Your task to perform on an android device: Show me the alarms in the clock app Image 0: 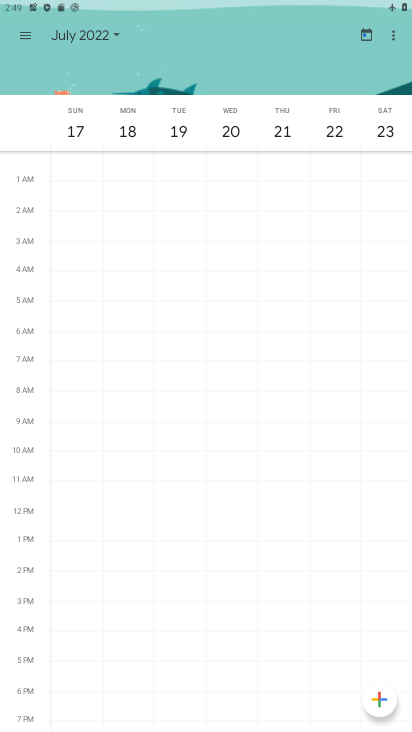
Step 0: press home button
Your task to perform on an android device: Show me the alarms in the clock app Image 1: 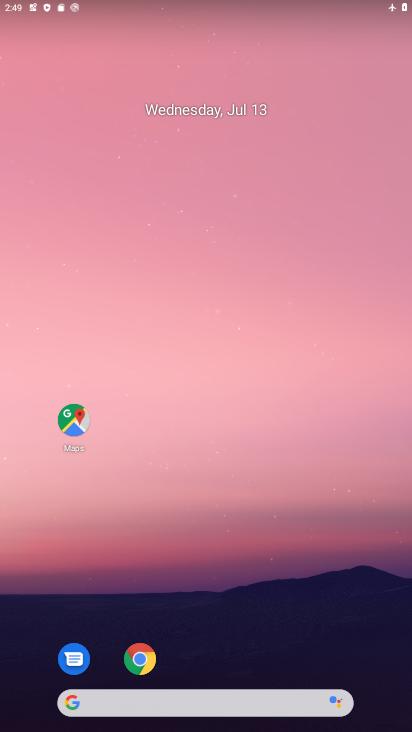
Step 1: drag from (382, 659) to (343, 145)
Your task to perform on an android device: Show me the alarms in the clock app Image 2: 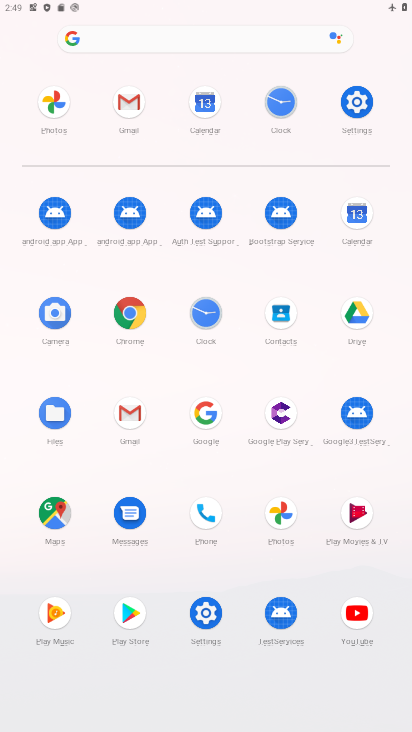
Step 2: click (205, 315)
Your task to perform on an android device: Show me the alarms in the clock app Image 3: 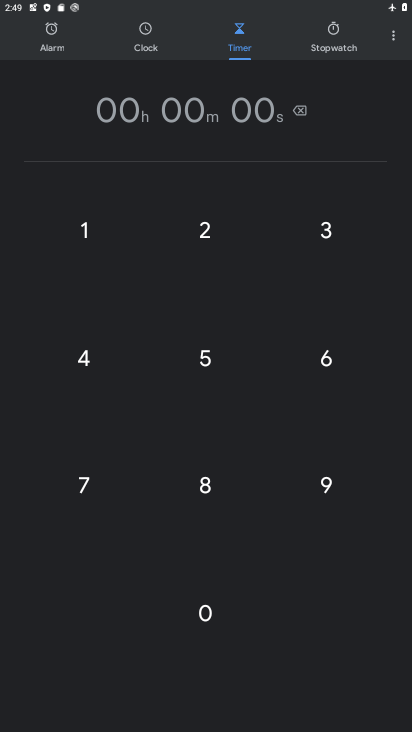
Step 3: click (58, 36)
Your task to perform on an android device: Show me the alarms in the clock app Image 4: 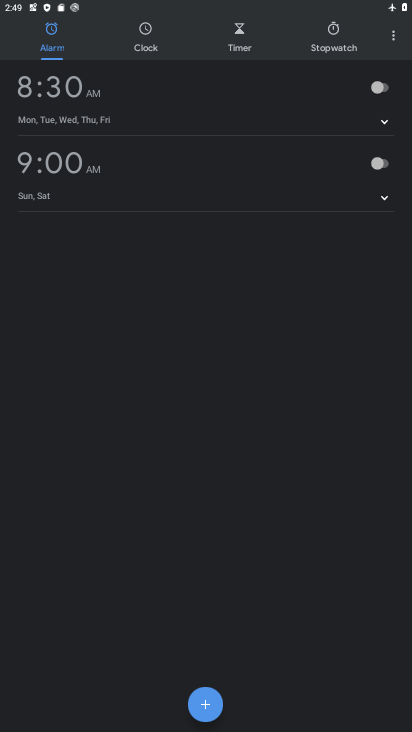
Step 4: task complete